Your task to perform on an android device: uninstall "Microsoft Outlook" Image 0: 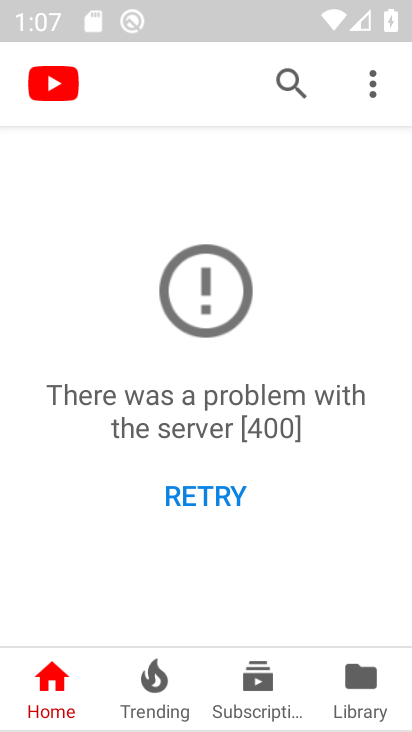
Step 0: press home button
Your task to perform on an android device: uninstall "Microsoft Outlook" Image 1: 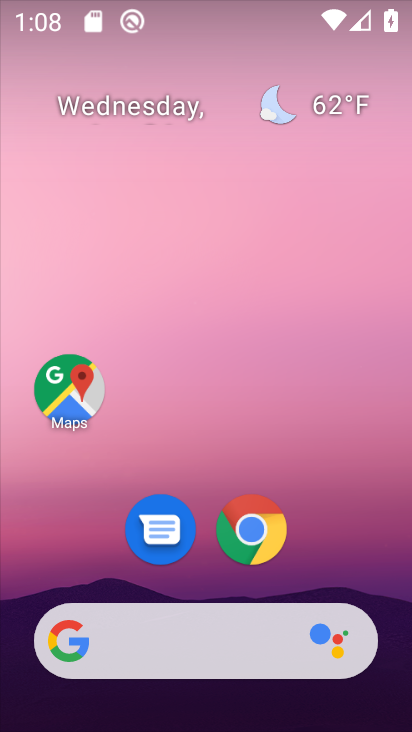
Step 1: drag from (221, 610) to (227, 288)
Your task to perform on an android device: uninstall "Microsoft Outlook" Image 2: 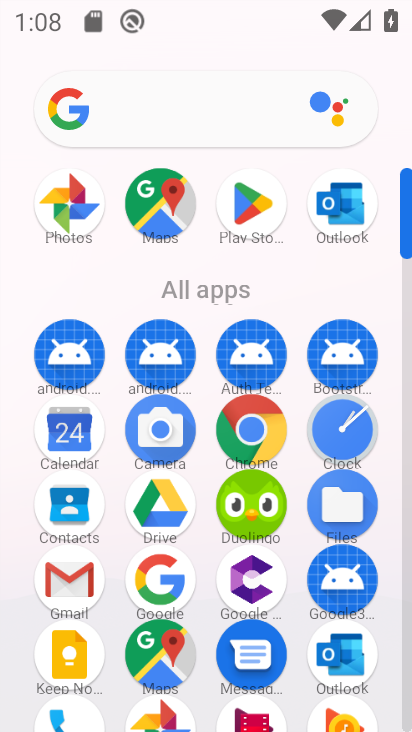
Step 2: click (257, 190)
Your task to perform on an android device: uninstall "Microsoft Outlook" Image 3: 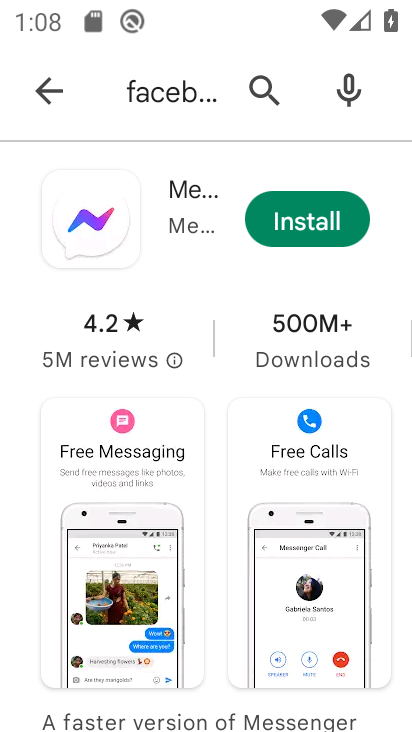
Step 3: click (66, 83)
Your task to perform on an android device: uninstall "Microsoft Outlook" Image 4: 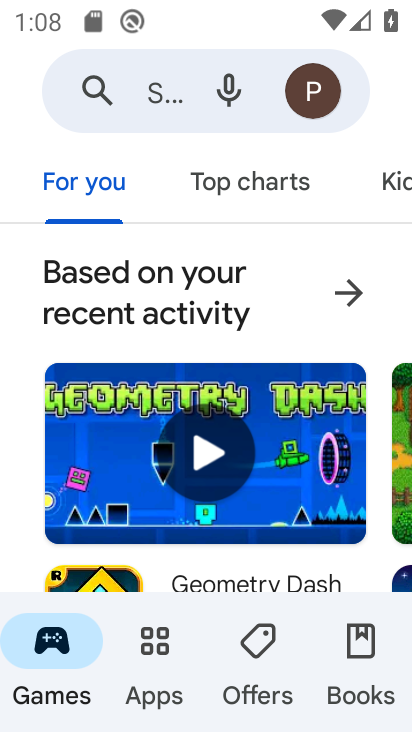
Step 4: click (154, 96)
Your task to perform on an android device: uninstall "Microsoft Outlook" Image 5: 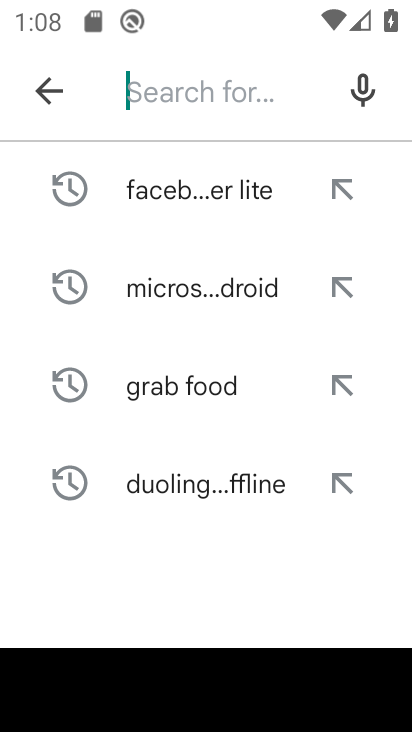
Step 5: type "Microsoft Outlook "
Your task to perform on an android device: uninstall "Microsoft Outlook" Image 6: 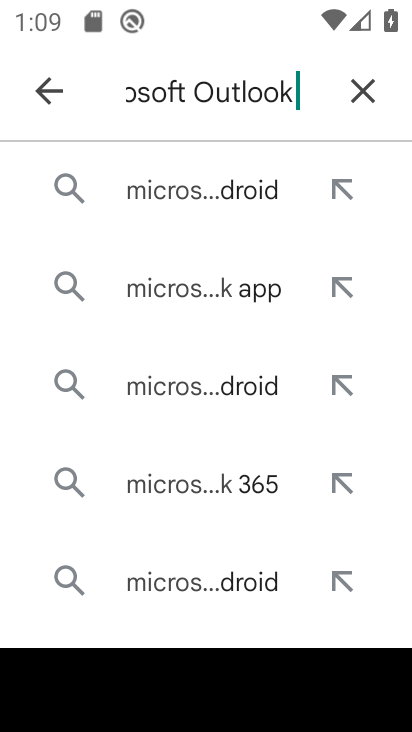
Step 6: click (148, 179)
Your task to perform on an android device: uninstall "Microsoft Outlook" Image 7: 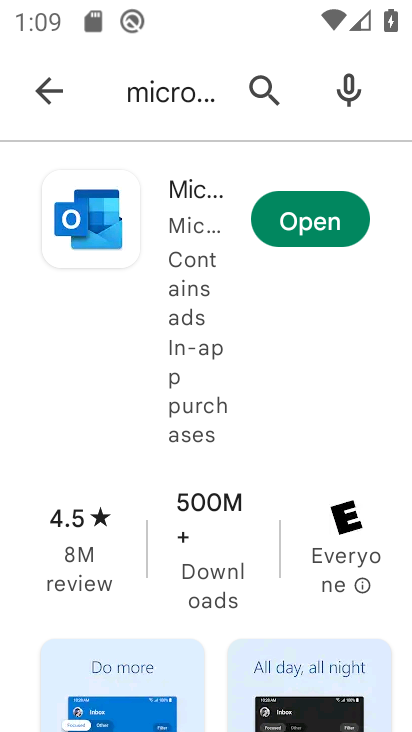
Step 7: click (168, 232)
Your task to perform on an android device: uninstall "Microsoft Outlook" Image 8: 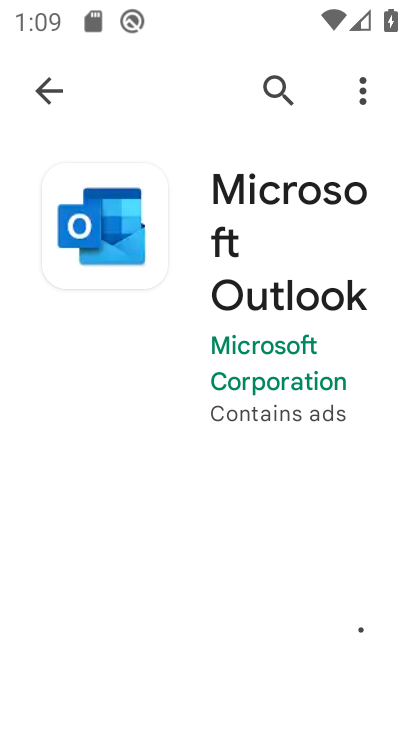
Step 8: drag from (131, 573) to (197, 120)
Your task to perform on an android device: uninstall "Microsoft Outlook" Image 9: 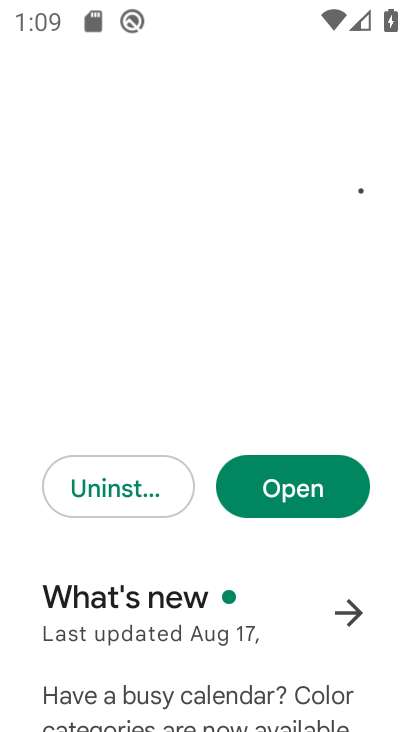
Step 9: click (89, 492)
Your task to perform on an android device: uninstall "Microsoft Outlook" Image 10: 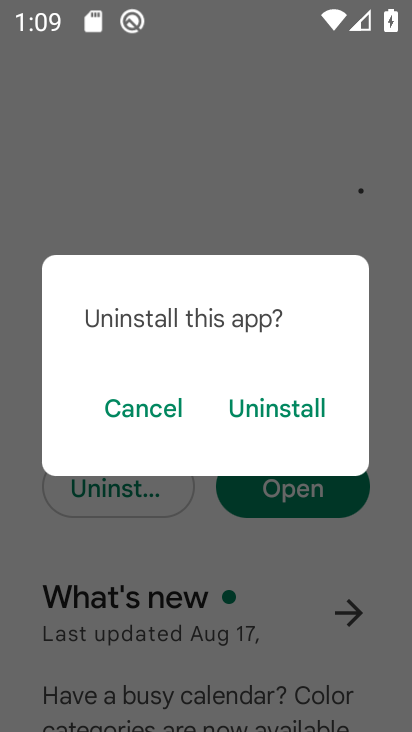
Step 10: click (293, 403)
Your task to perform on an android device: uninstall "Microsoft Outlook" Image 11: 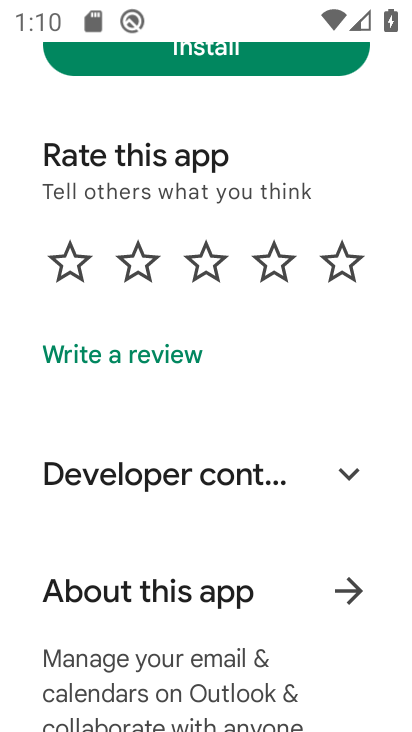
Step 11: task complete